Your task to perform on an android device: open app "AliExpress" Image 0: 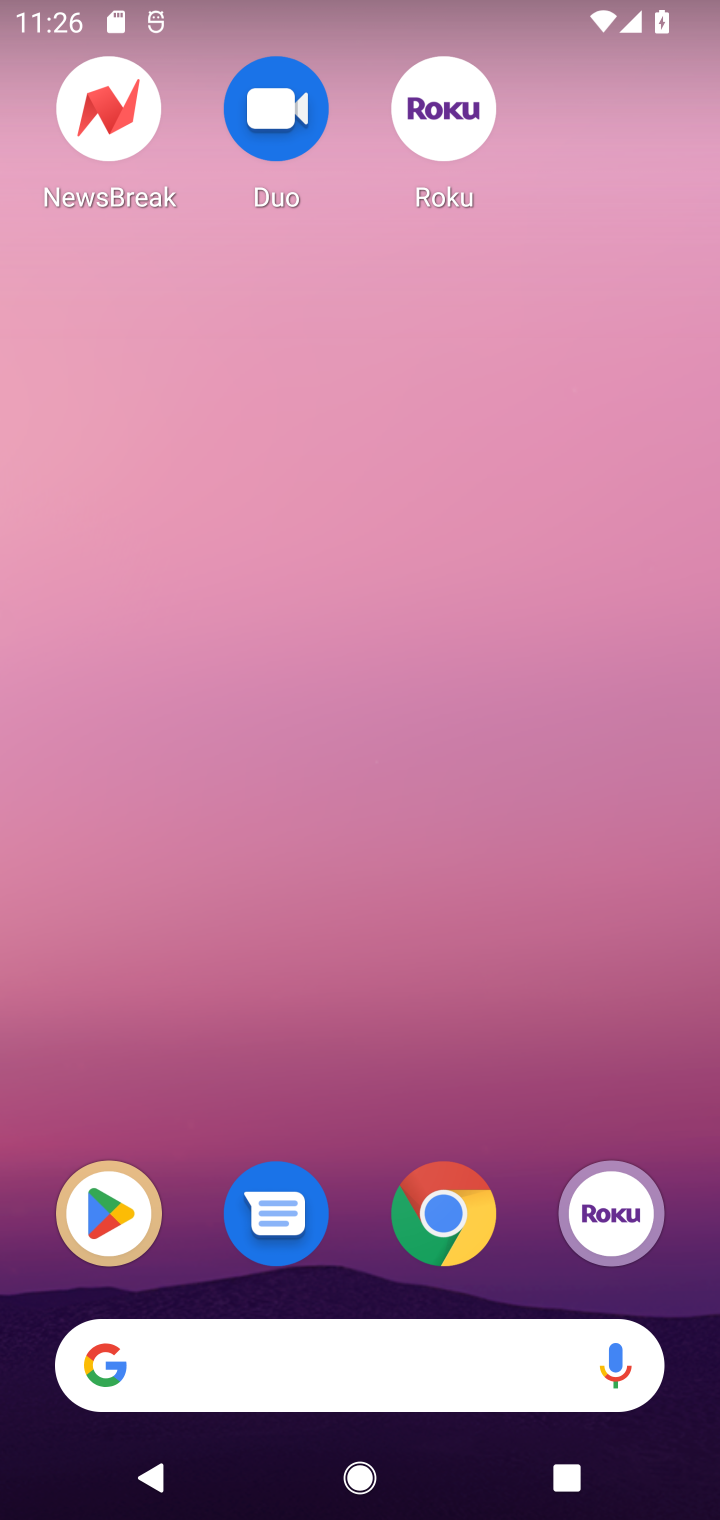
Step 0: drag from (399, 969) to (394, 367)
Your task to perform on an android device: open app "AliExpress" Image 1: 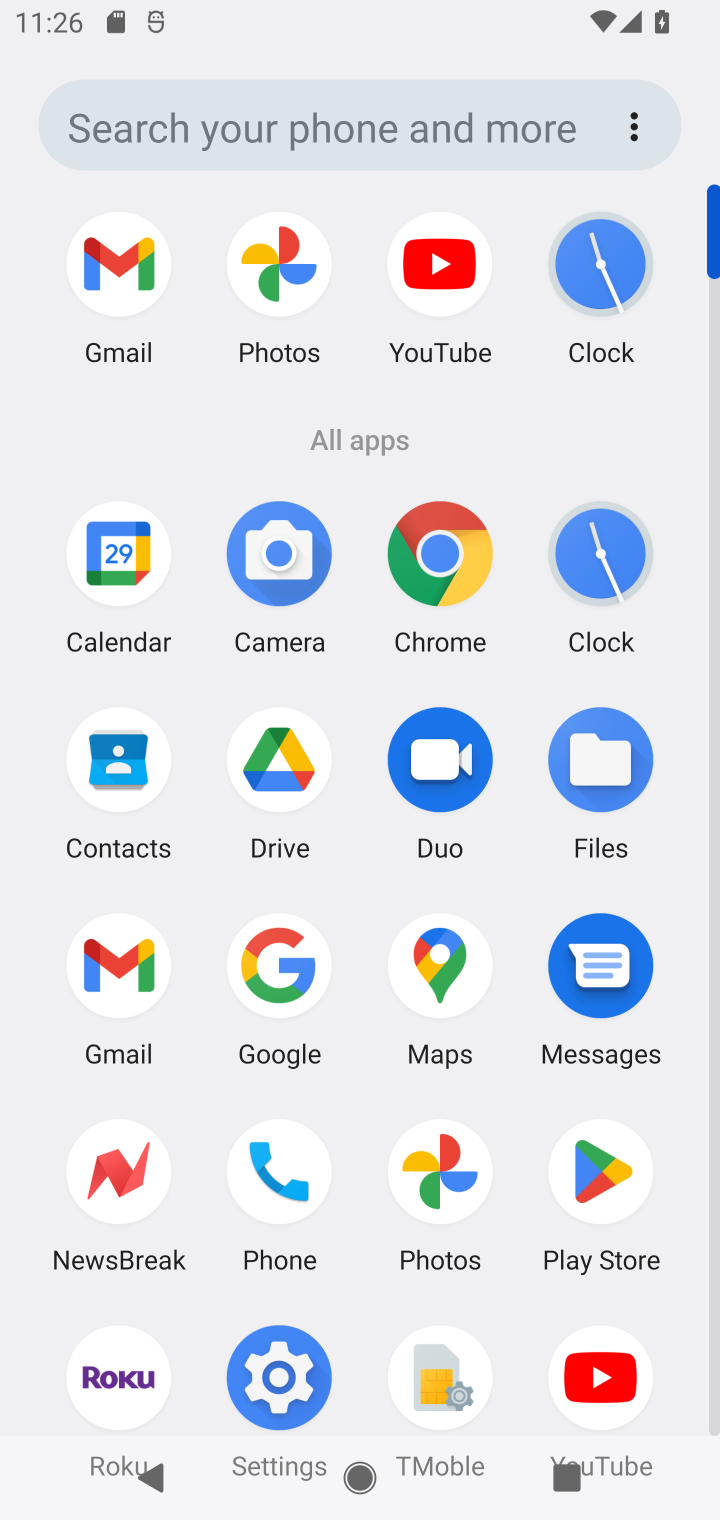
Step 1: click (612, 1174)
Your task to perform on an android device: open app "AliExpress" Image 2: 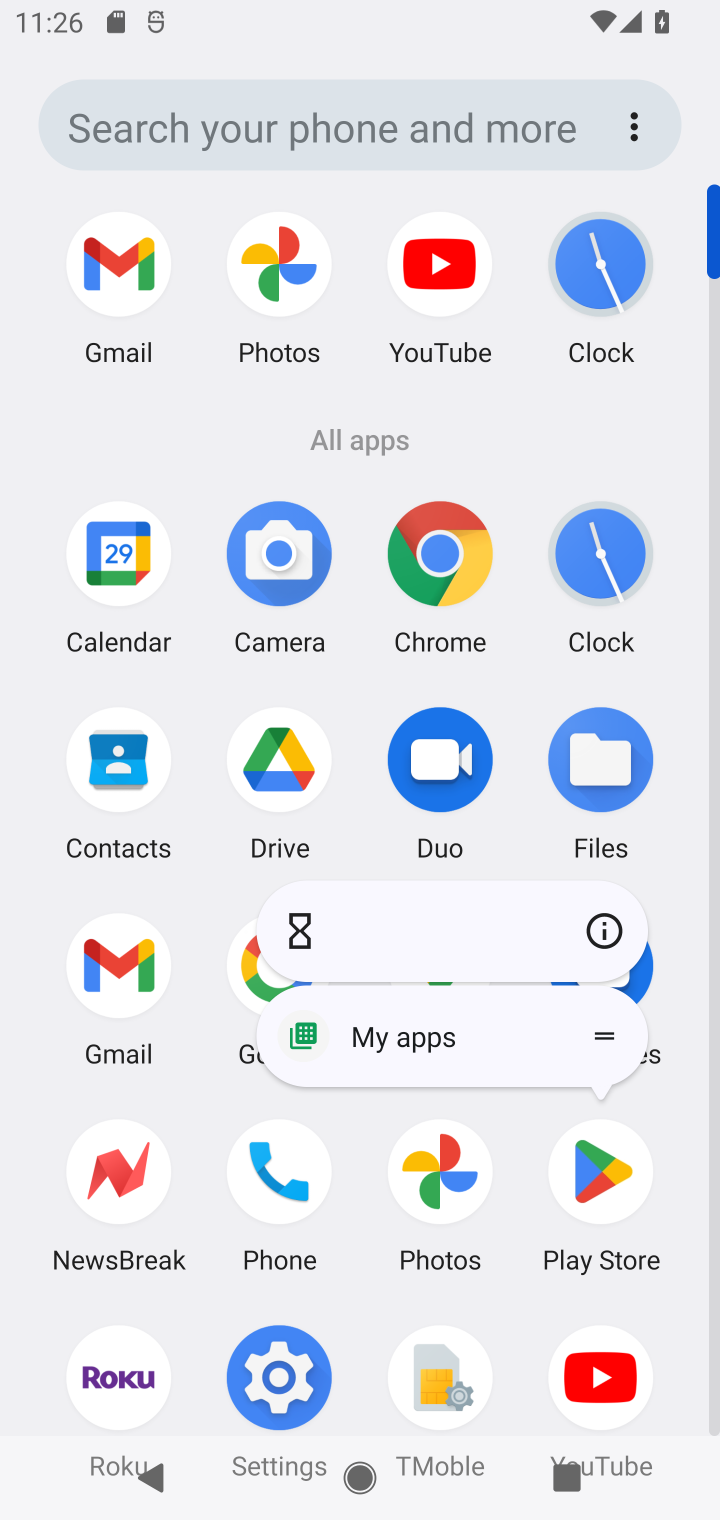
Step 2: click (587, 1189)
Your task to perform on an android device: open app "AliExpress" Image 3: 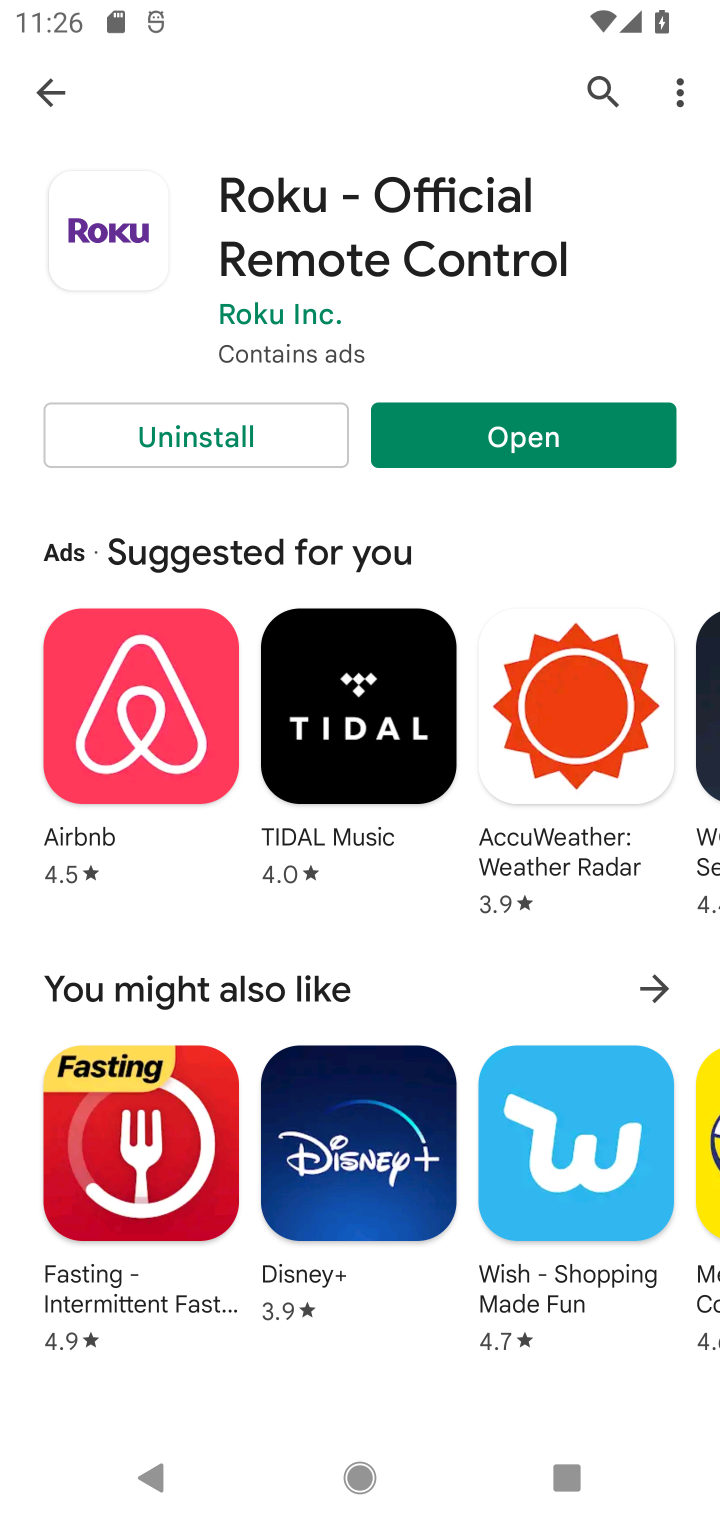
Step 3: click (590, 92)
Your task to perform on an android device: open app "AliExpress" Image 4: 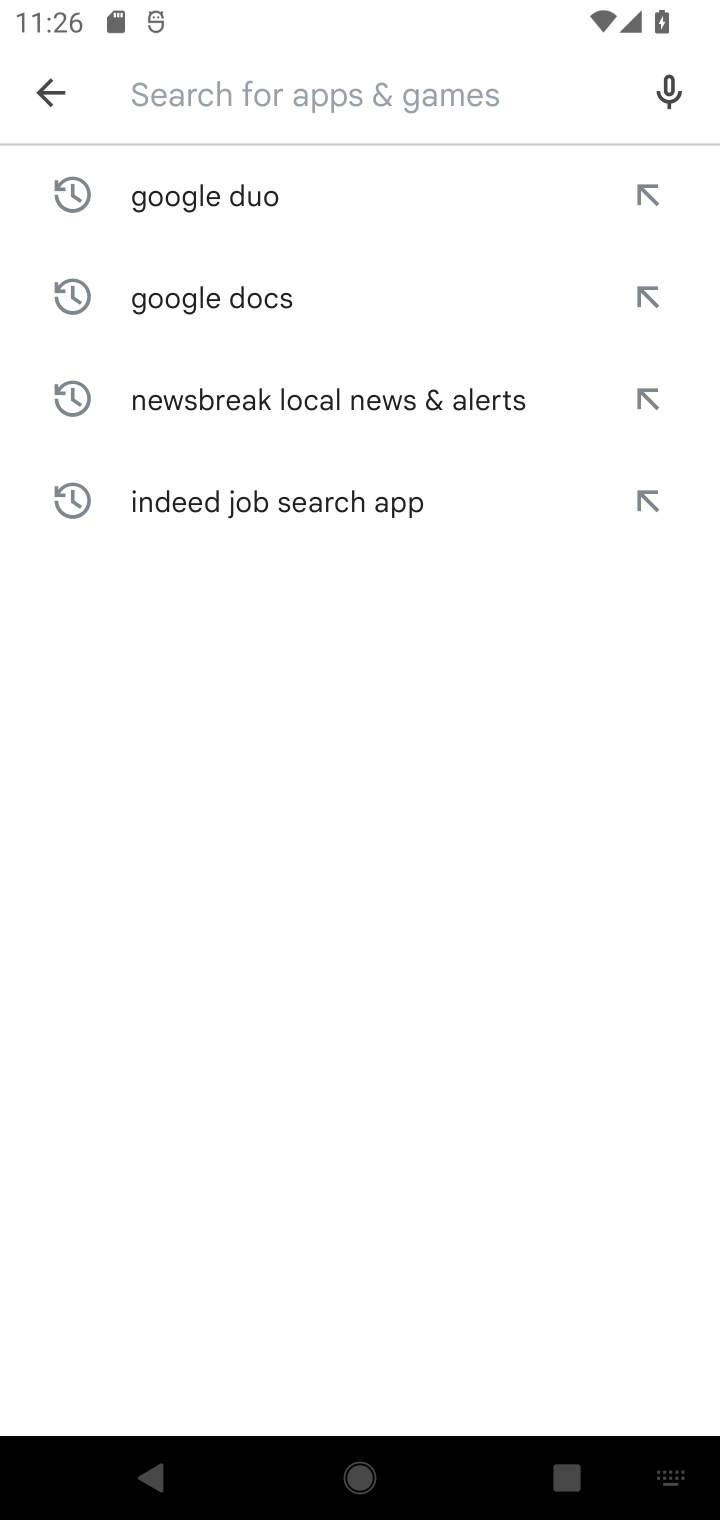
Step 4: type "AliExpress"
Your task to perform on an android device: open app "AliExpress" Image 5: 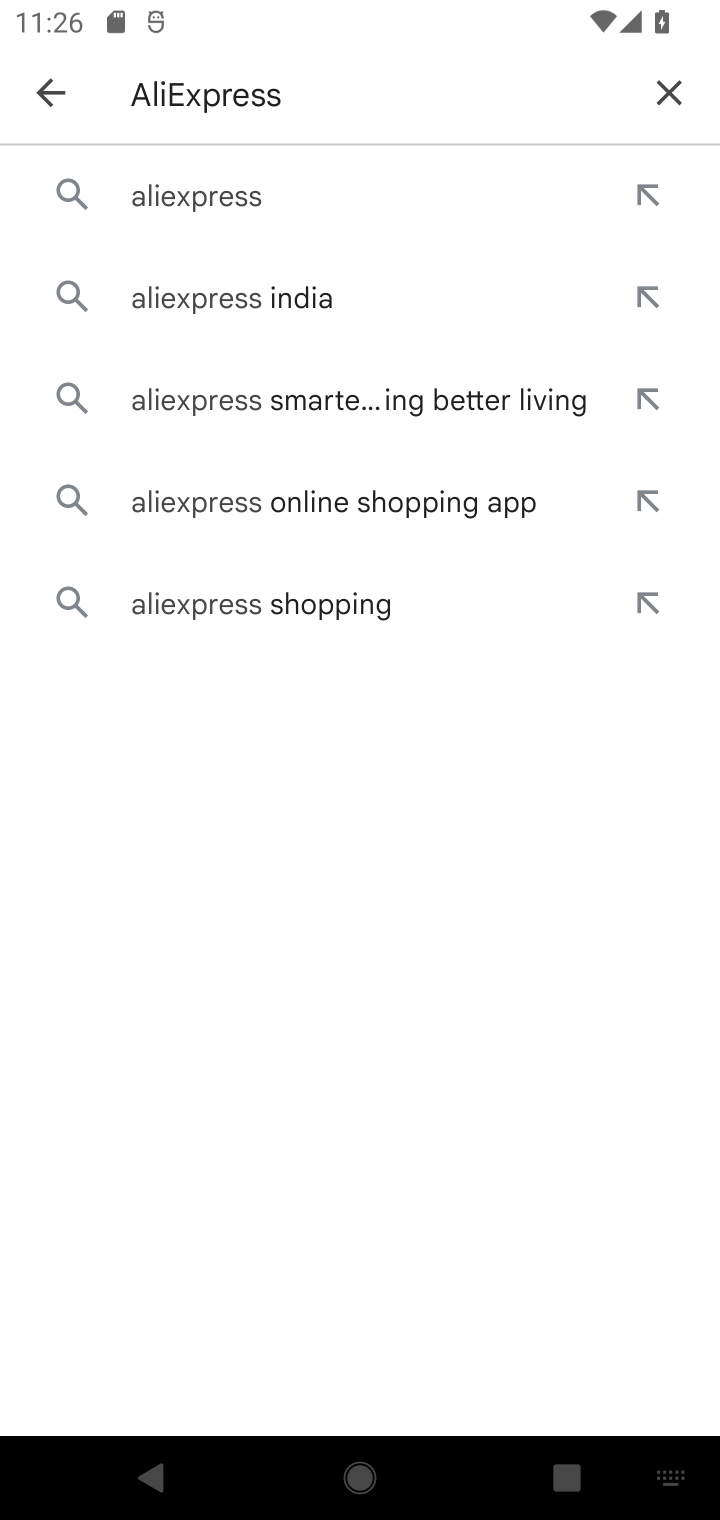
Step 5: click (196, 197)
Your task to perform on an android device: open app "AliExpress" Image 6: 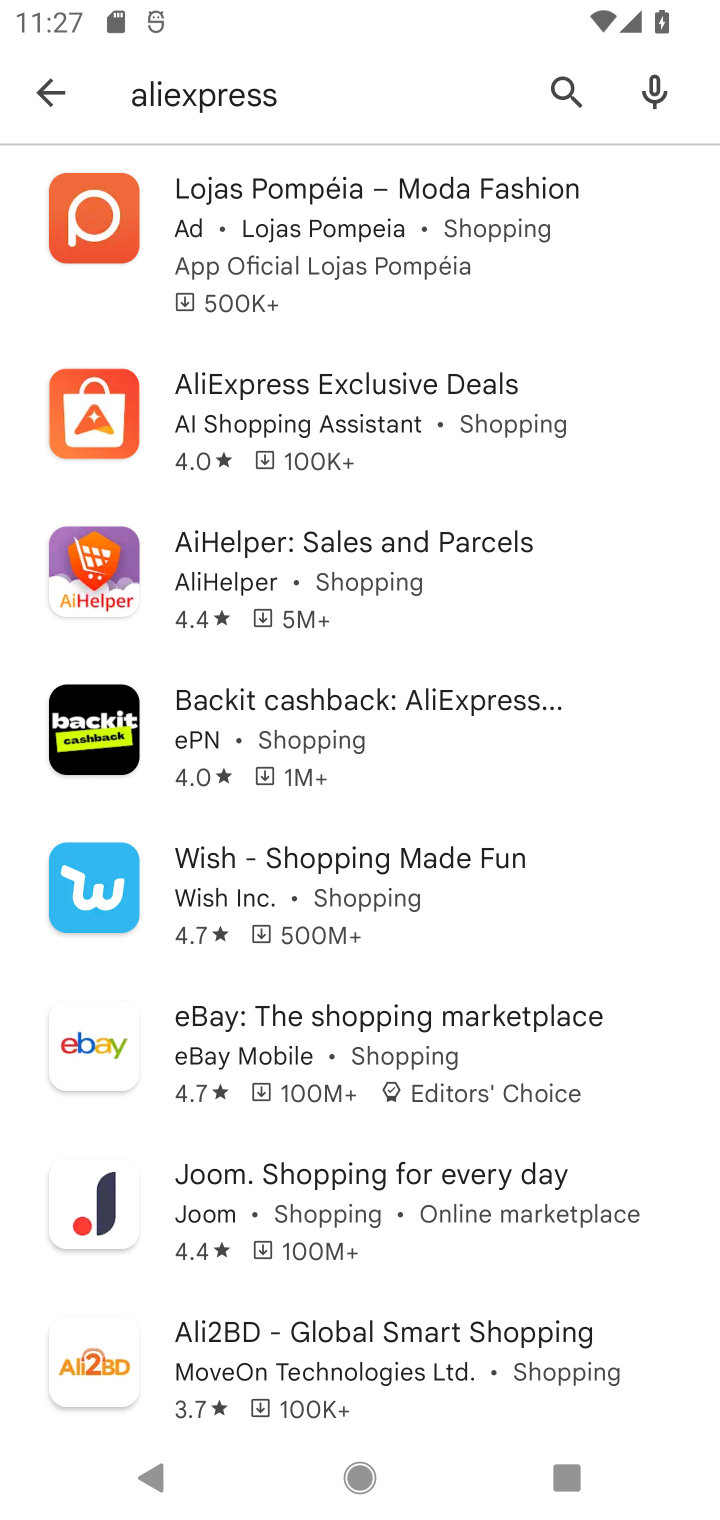
Step 6: click (298, 402)
Your task to perform on an android device: open app "AliExpress" Image 7: 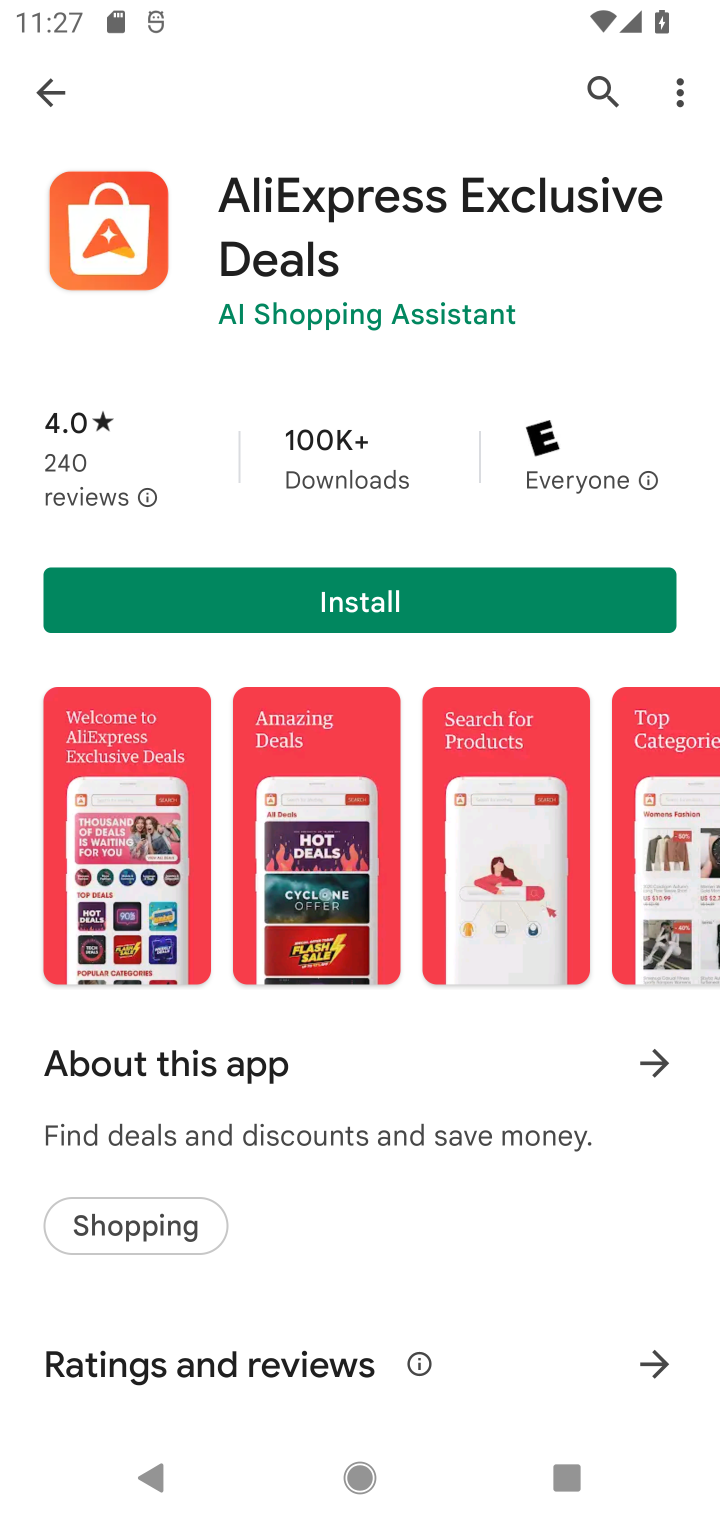
Step 7: task complete